Your task to perform on an android device: add a label to a message in the gmail app Image 0: 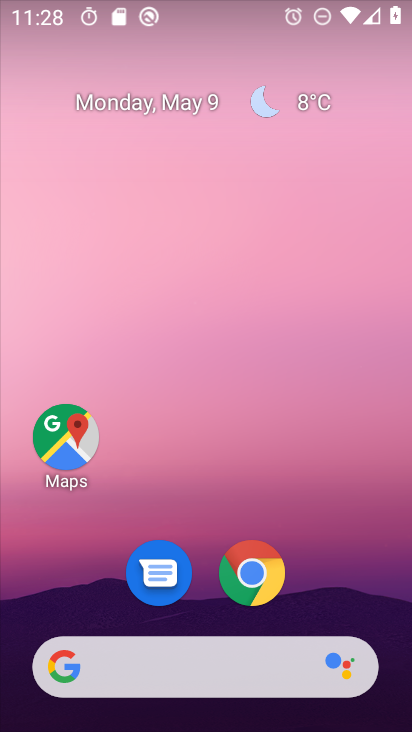
Step 0: drag from (312, 583) to (340, 187)
Your task to perform on an android device: add a label to a message in the gmail app Image 1: 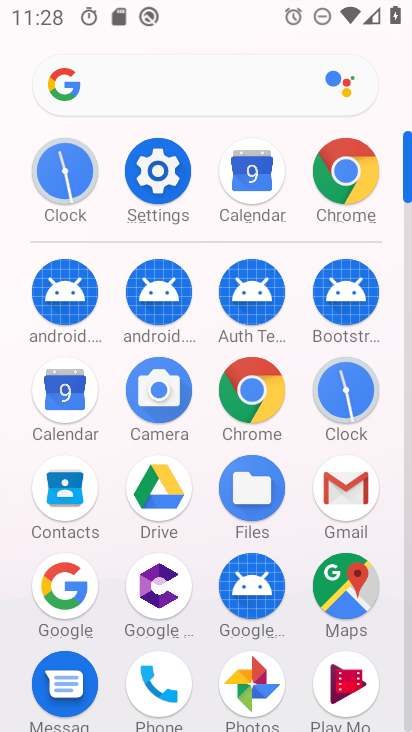
Step 1: click (341, 500)
Your task to perform on an android device: add a label to a message in the gmail app Image 2: 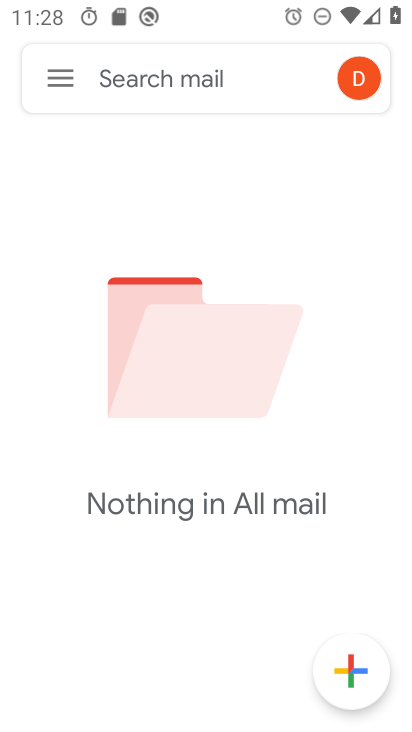
Step 2: click (49, 14)
Your task to perform on an android device: add a label to a message in the gmail app Image 3: 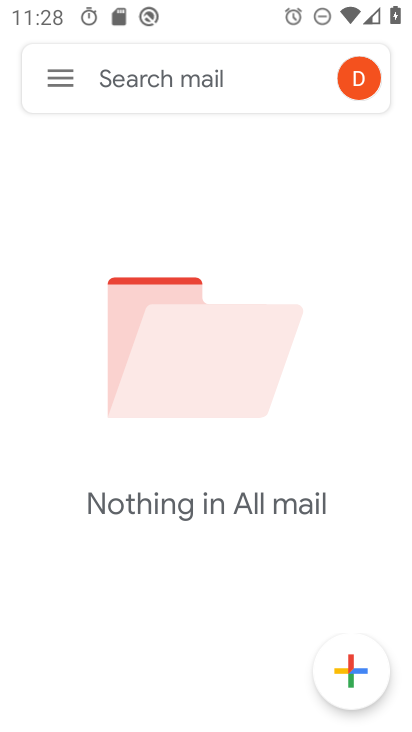
Step 3: task complete